Your task to perform on an android device: Open Android settings Image 0: 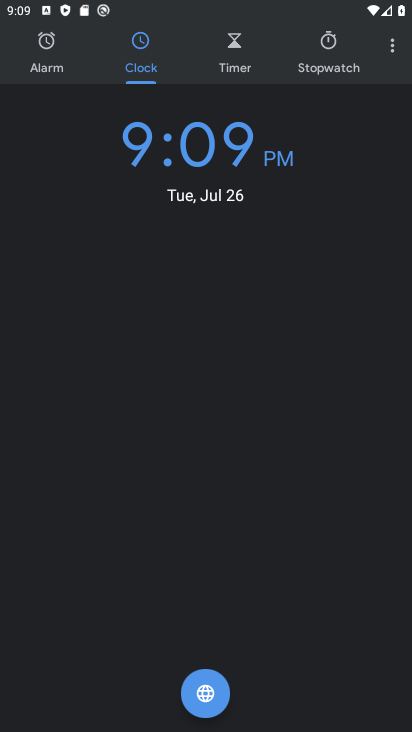
Step 0: press home button
Your task to perform on an android device: Open Android settings Image 1: 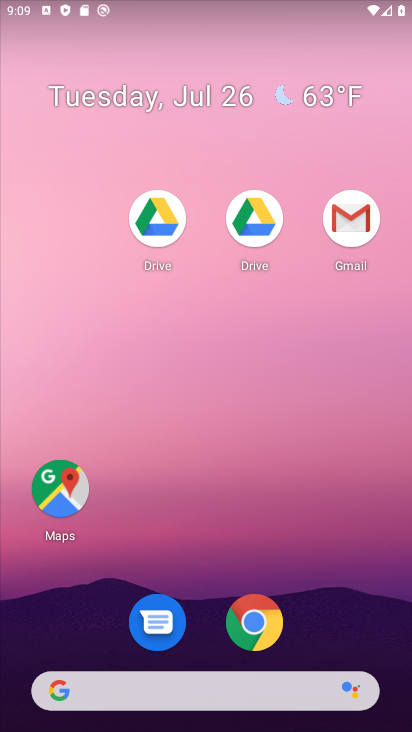
Step 1: drag from (345, 662) to (240, 88)
Your task to perform on an android device: Open Android settings Image 2: 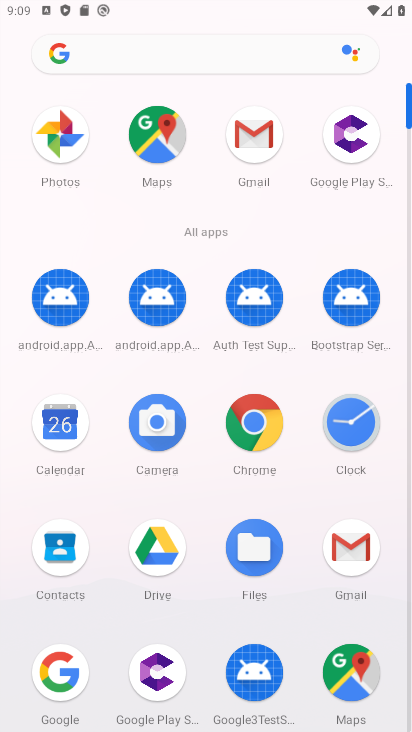
Step 2: drag from (204, 501) to (231, 206)
Your task to perform on an android device: Open Android settings Image 3: 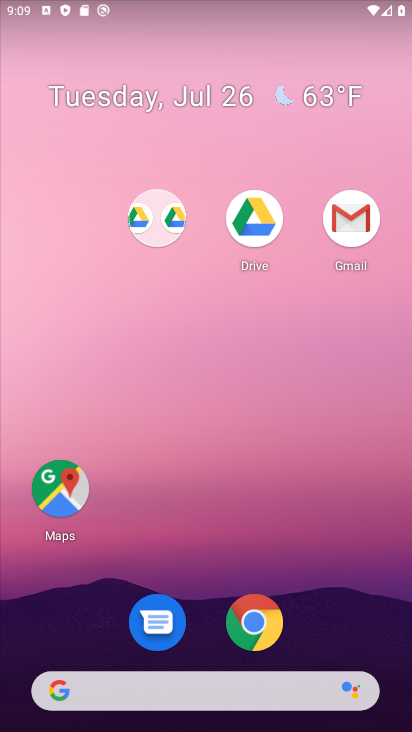
Step 3: drag from (228, 521) to (244, 77)
Your task to perform on an android device: Open Android settings Image 4: 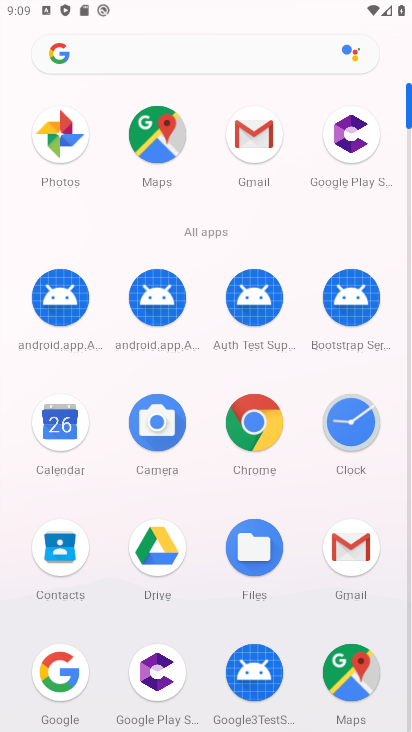
Step 4: click (408, 723)
Your task to perform on an android device: Open Android settings Image 5: 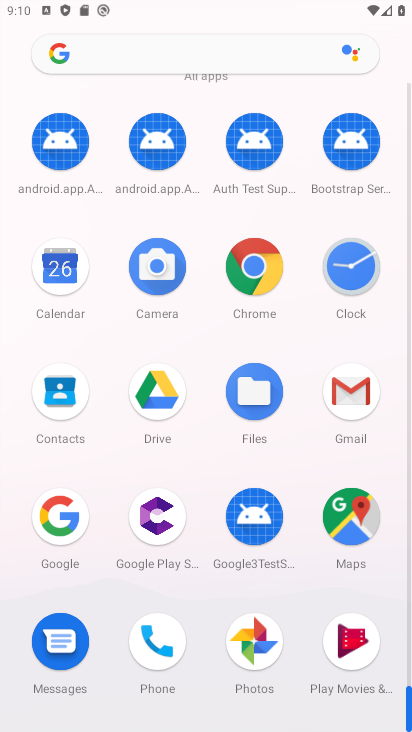
Step 5: click (406, 702)
Your task to perform on an android device: Open Android settings Image 6: 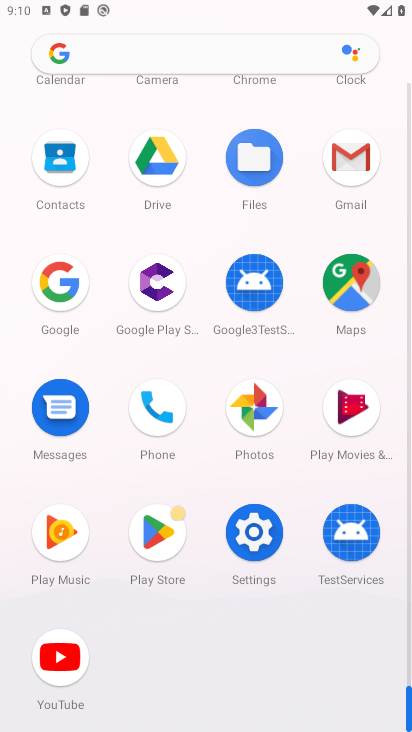
Step 6: click (262, 561)
Your task to perform on an android device: Open Android settings Image 7: 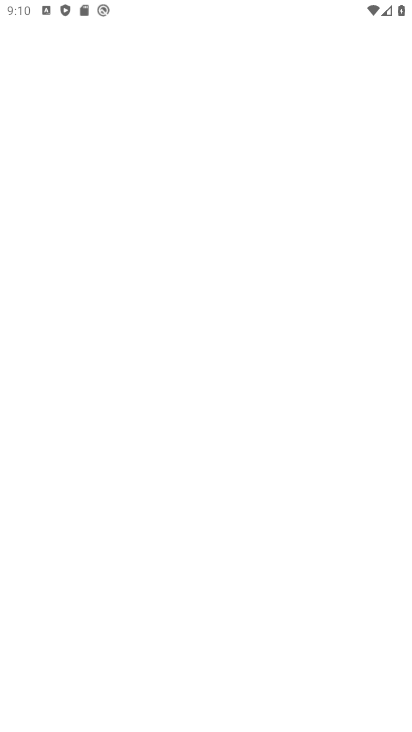
Step 7: task complete